Your task to perform on an android device: install app "Google Play Games" Image 0: 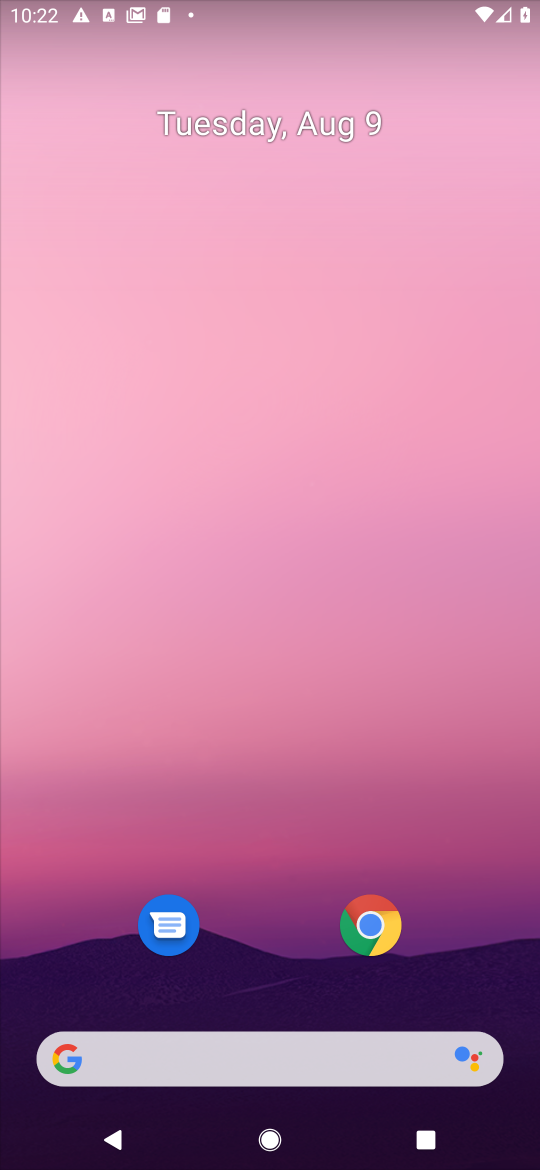
Step 0: drag from (231, 815) to (328, 20)
Your task to perform on an android device: install app "Google Play Games" Image 1: 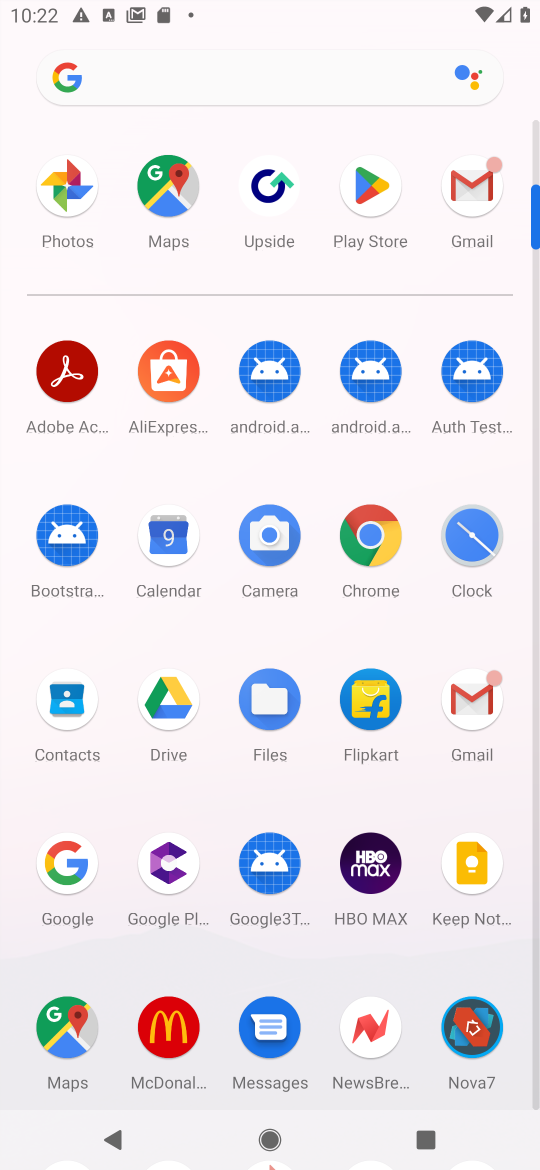
Step 1: click (376, 197)
Your task to perform on an android device: install app "Google Play Games" Image 2: 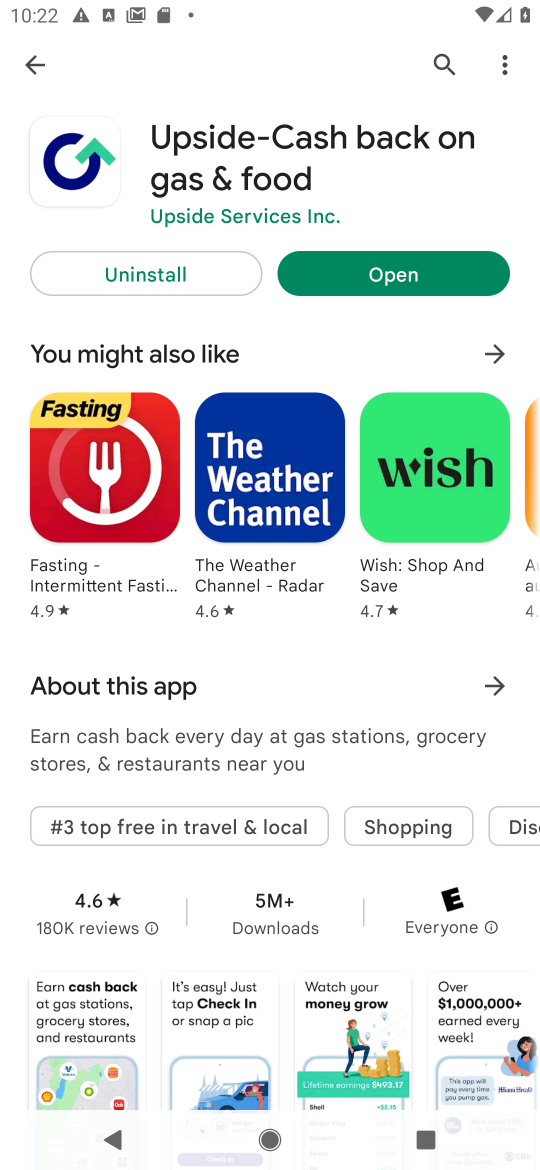
Step 2: click (24, 68)
Your task to perform on an android device: install app "Google Play Games" Image 3: 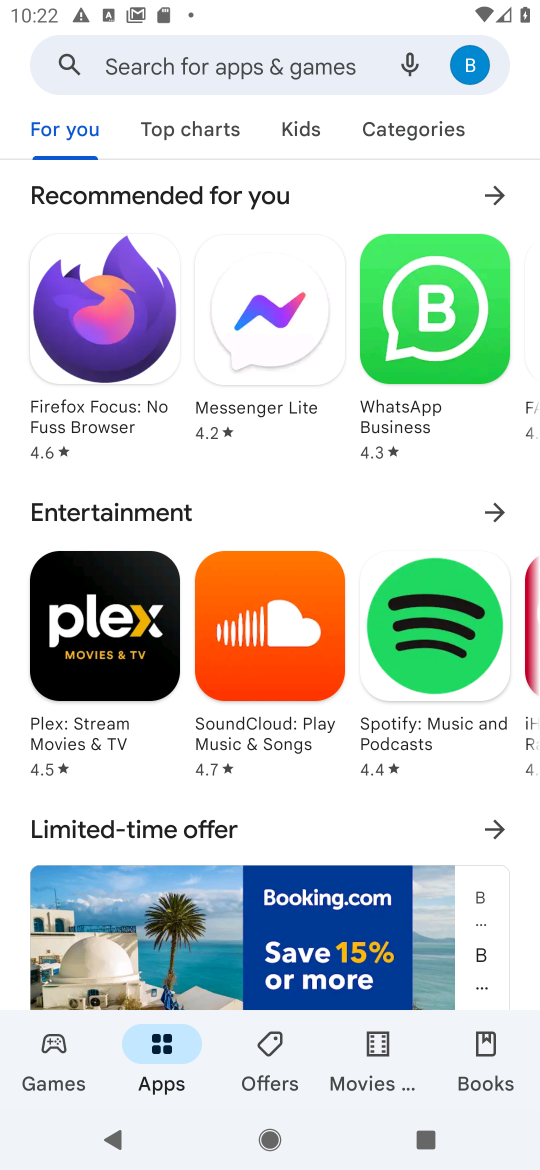
Step 3: click (267, 53)
Your task to perform on an android device: install app "Google Play Games" Image 4: 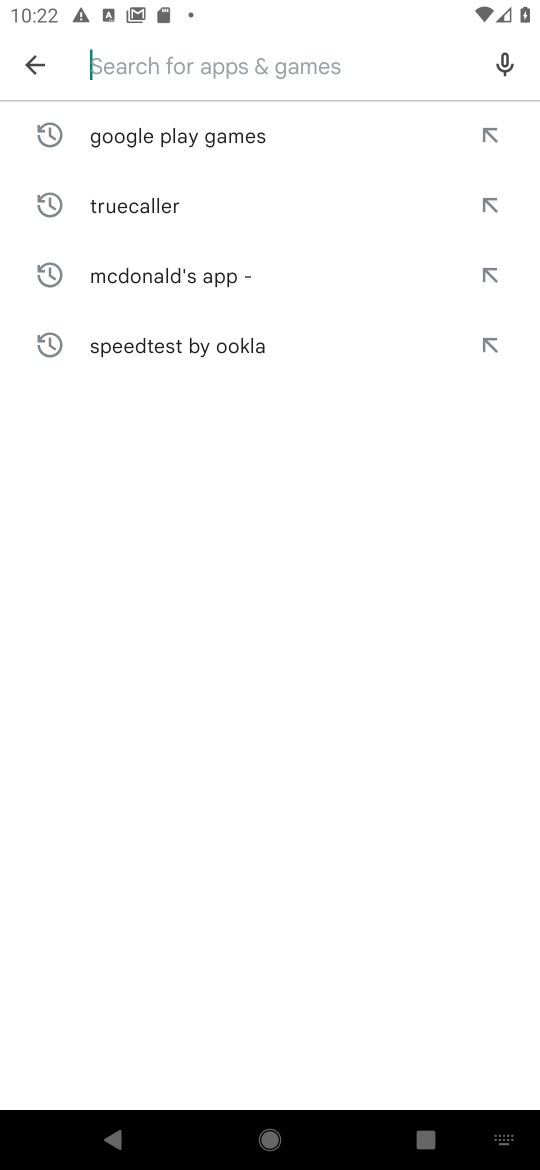
Step 4: click (218, 137)
Your task to perform on an android device: install app "Google Play Games" Image 5: 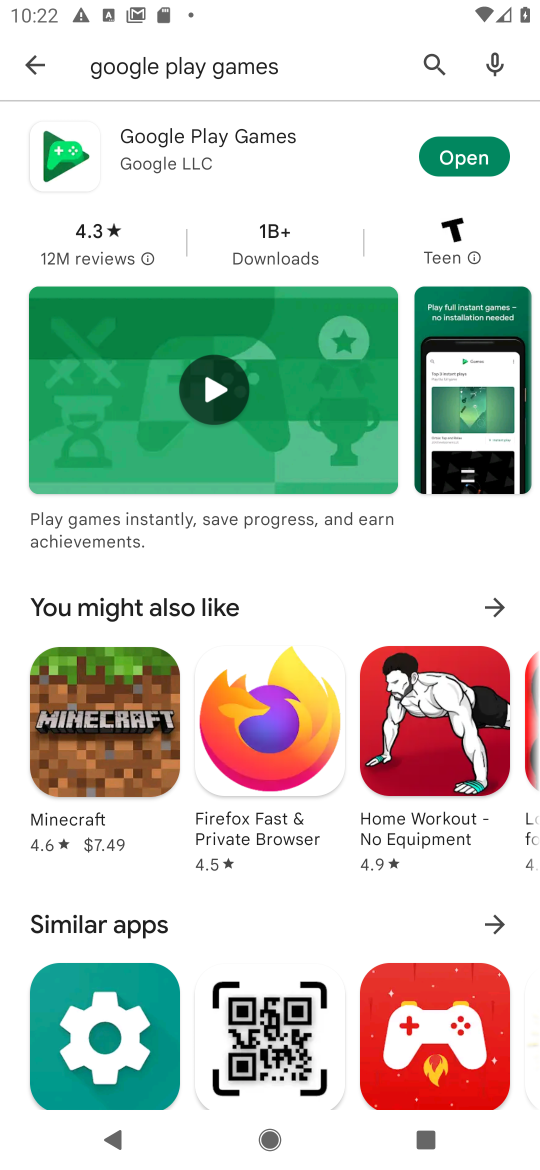
Step 5: click (457, 153)
Your task to perform on an android device: install app "Google Play Games" Image 6: 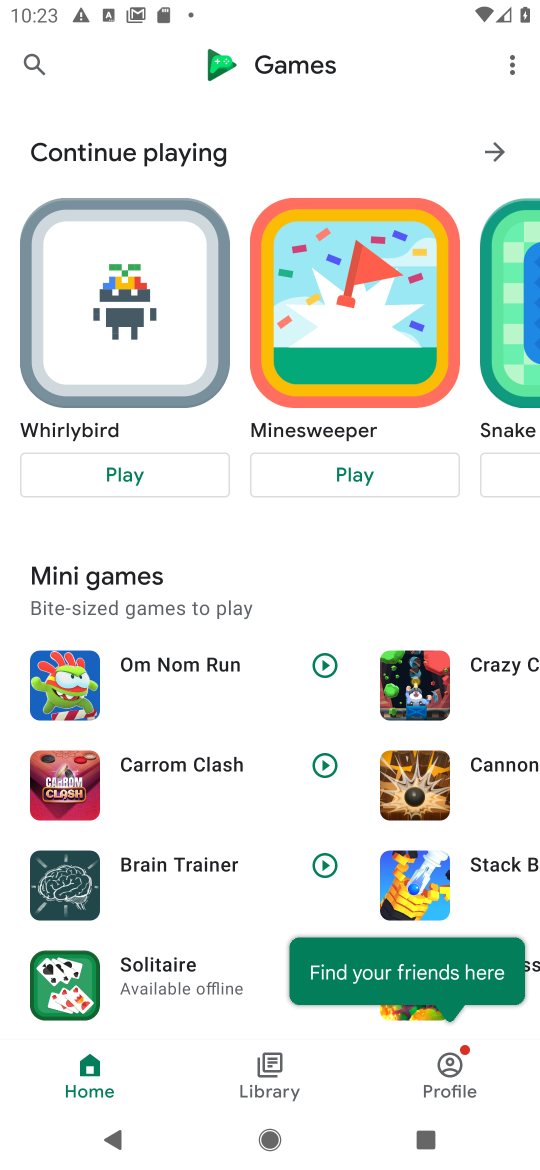
Step 6: task complete